Your task to perform on an android device: Open sound settings Image 0: 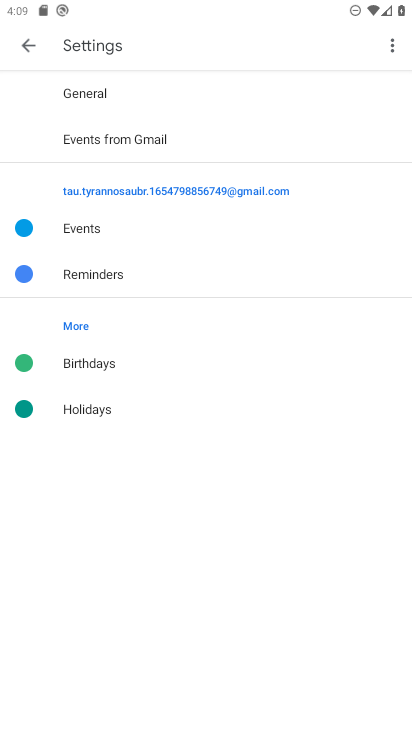
Step 0: press home button
Your task to perform on an android device: Open sound settings Image 1: 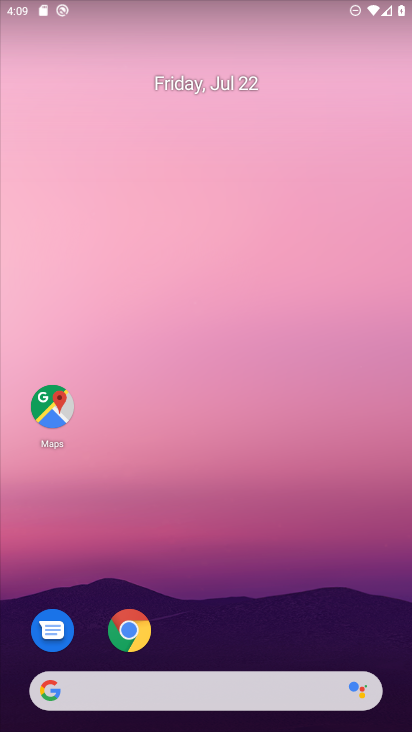
Step 1: drag from (220, 590) to (212, 4)
Your task to perform on an android device: Open sound settings Image 2: 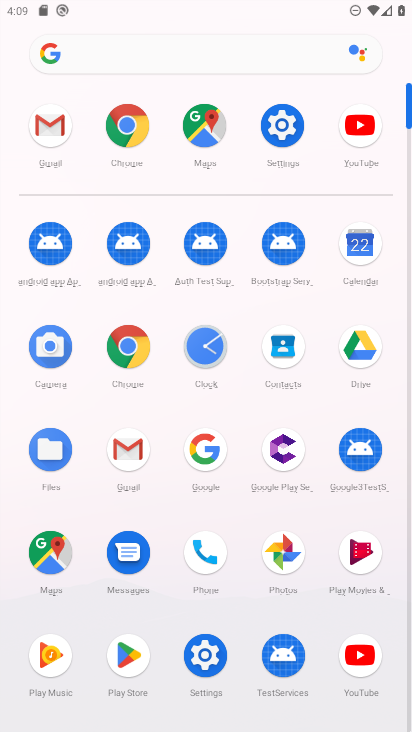
Step 2: click (207, 667)
Your task to perform on an android device: Open sound settings Image 3: 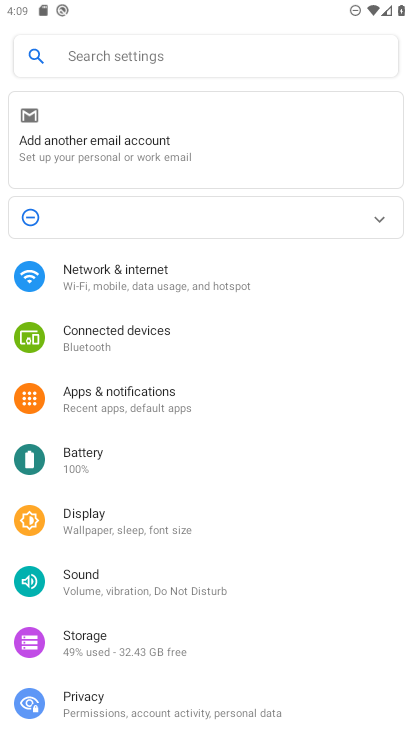
Step 3: click (112, 595)
Your task to perform on an android device: Open sound settings Image 4: 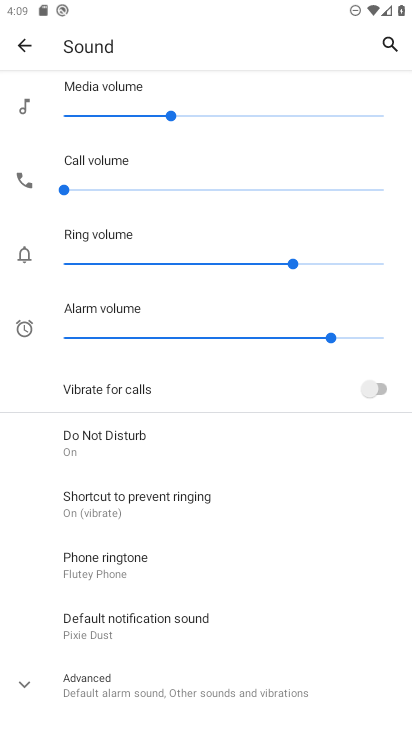
Step 4: task complete